Your task to perform on an android device: clear history in the chrome app Image 0: 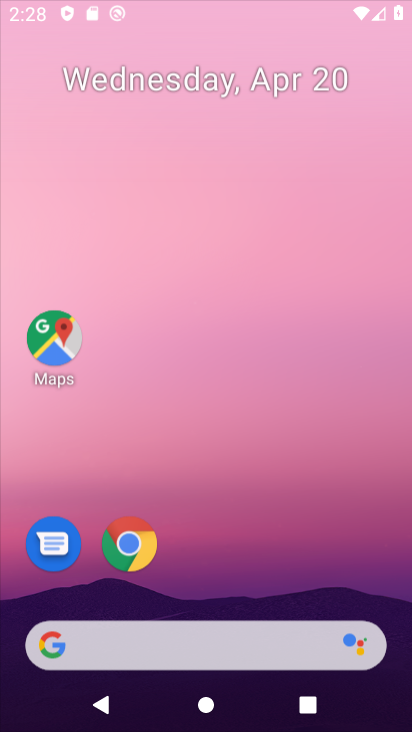
Step 0: drag from (188, 590) to (319, 24)
Your task to perform on an android device: clear history in the chrome app Image 1: 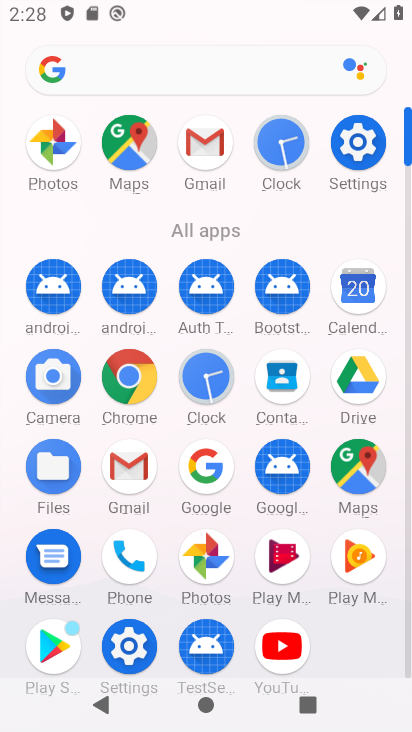
Step 1: click (133, 374)
Your task to perform on an android device: clear history in the chrome app Image 2: 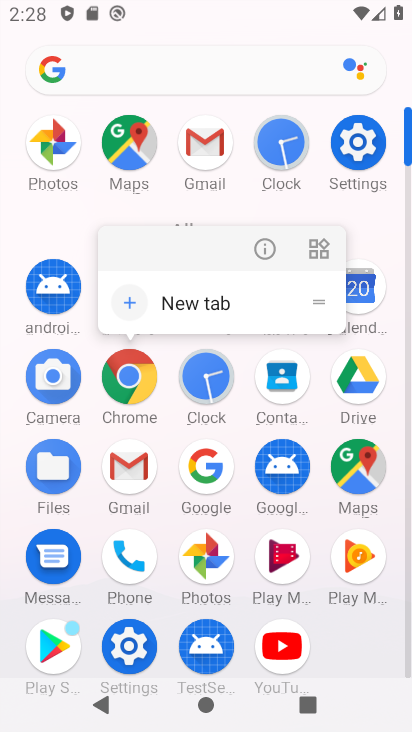
Step 2: click (133, 374)
Your task to perform on an android device: clear history in the chrome app Image 3: 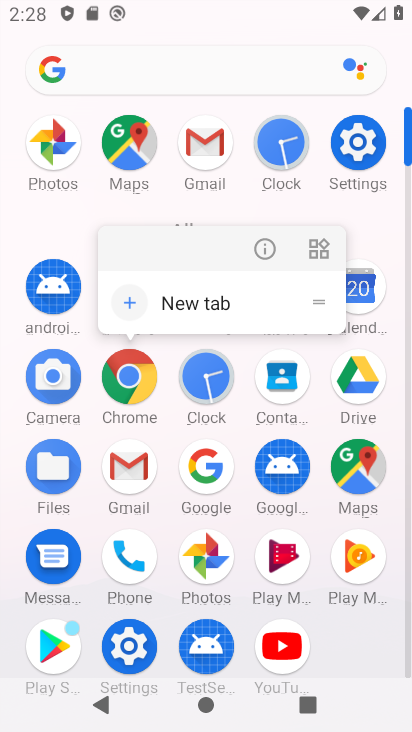
Step 3: click (133, 388)
Your task to perform on an android device: clear history in the chrome app Image 4: 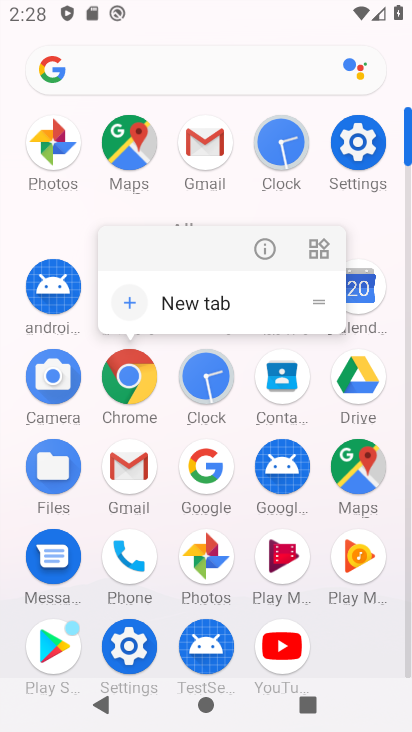
Step 4: click (122, 364)
Your task to perform on an android device: clear history in the chrome app Image 5: 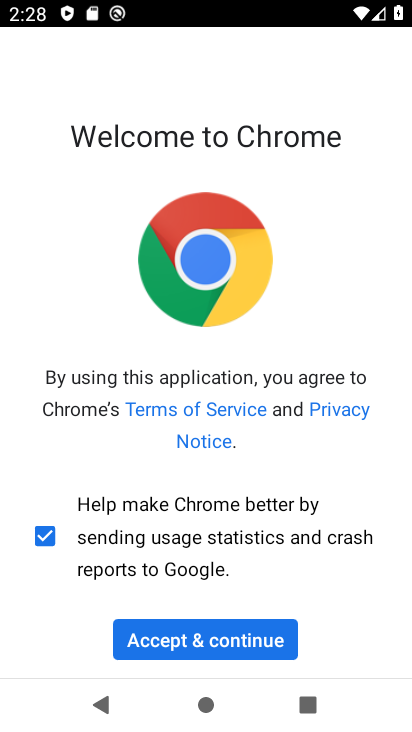
Step 5: click (253, 630)
Your task to perform on an android device: clear history in the chrome app Image 6: 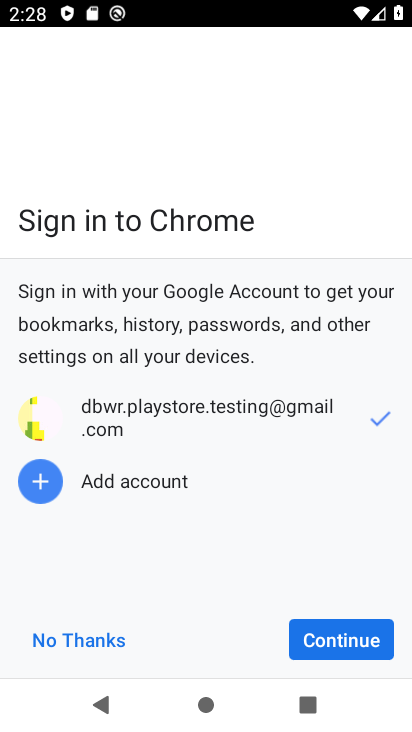
Step 6: click (323, 632)
Your task to perform on an android device: clear history in the chrome app Image 7: 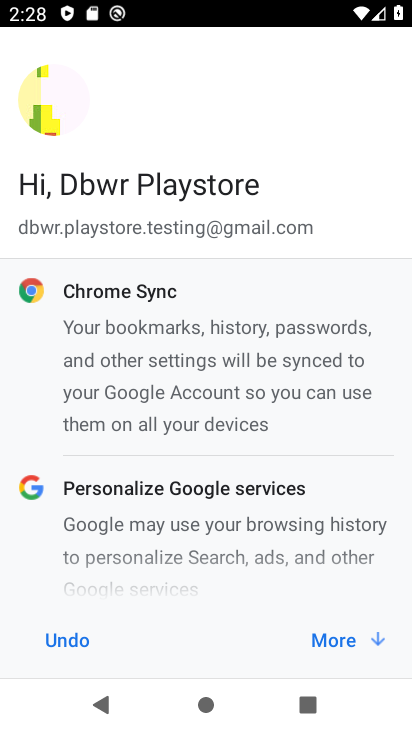
Step 7: click (324, 632)
Your task to perform on an android device: clear history in the chrome app Image 8: 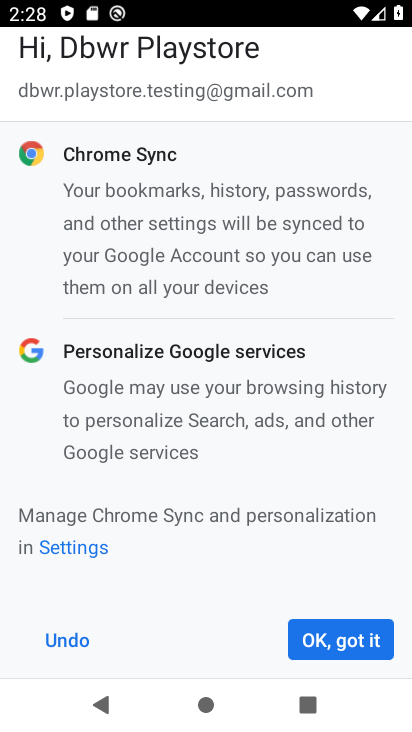
Step 8: click (326, 632)
Your task to perform on an android device: clear history in the chrome app Image 9: 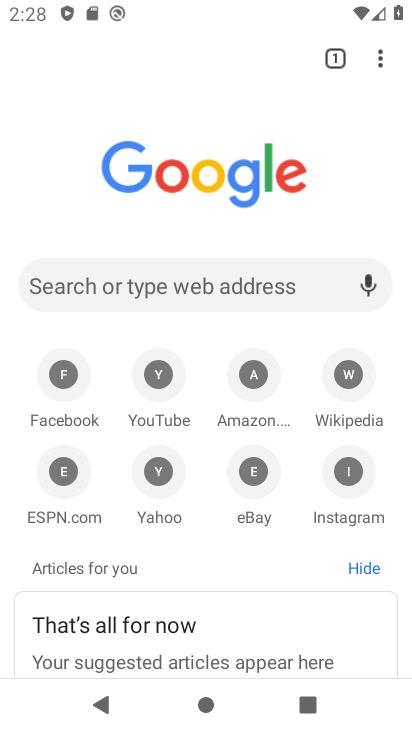
Step 9: task complete